Your task to perform on an android device: Open Amazon Image 0: 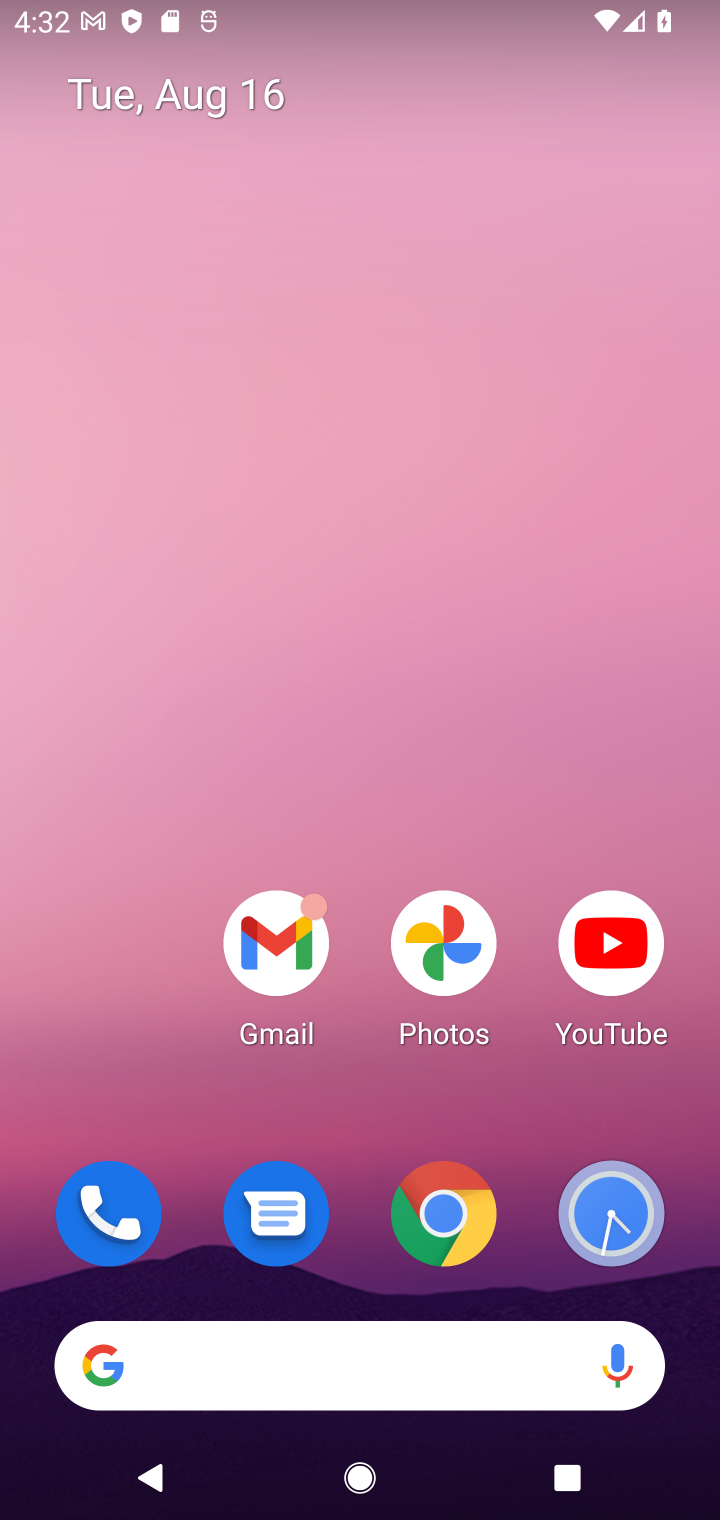
Step 0: drag from (479, 909) to (378, 0)
Your task to perform on an android device: Open Amazon Image 1: 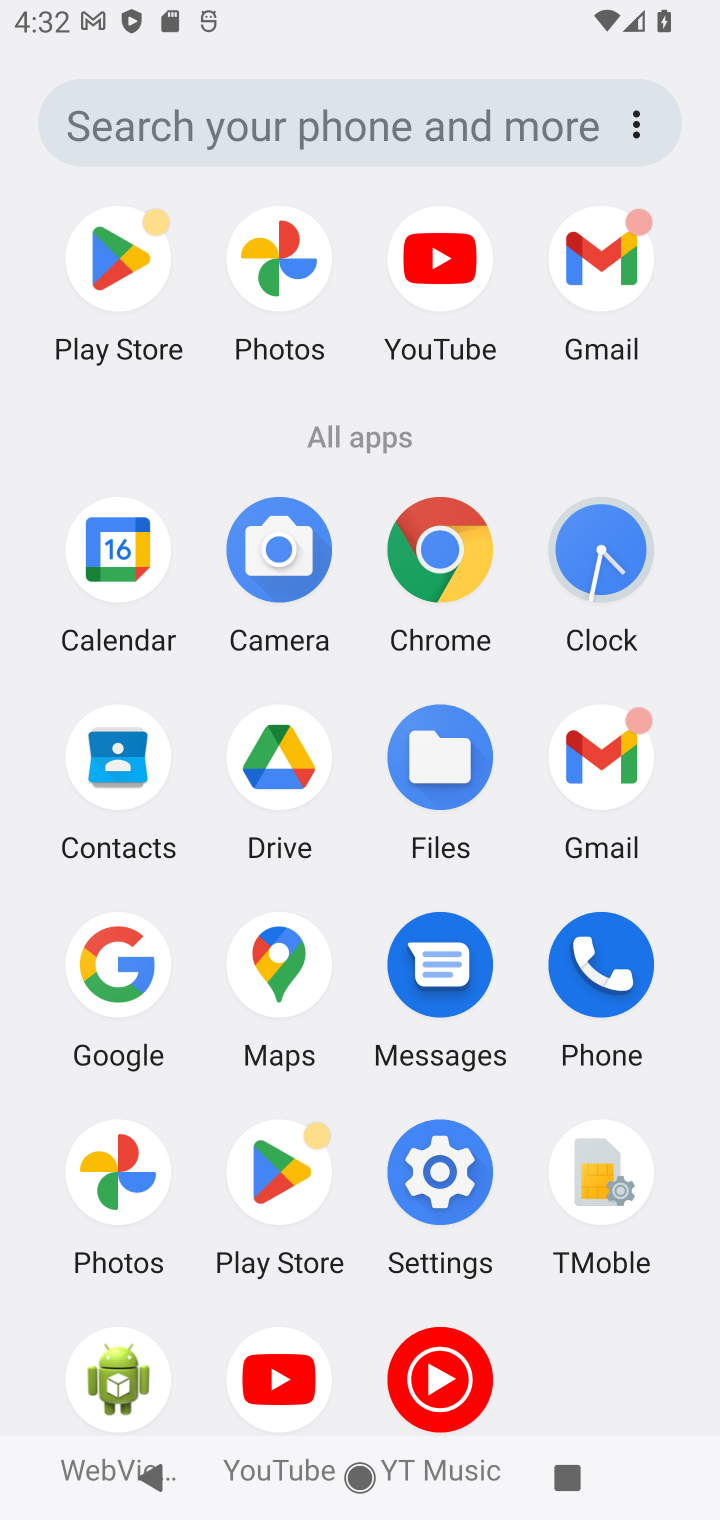
Step 1: click (434, 545)
Your task to perform on an android device: Open Amazon Image 2: 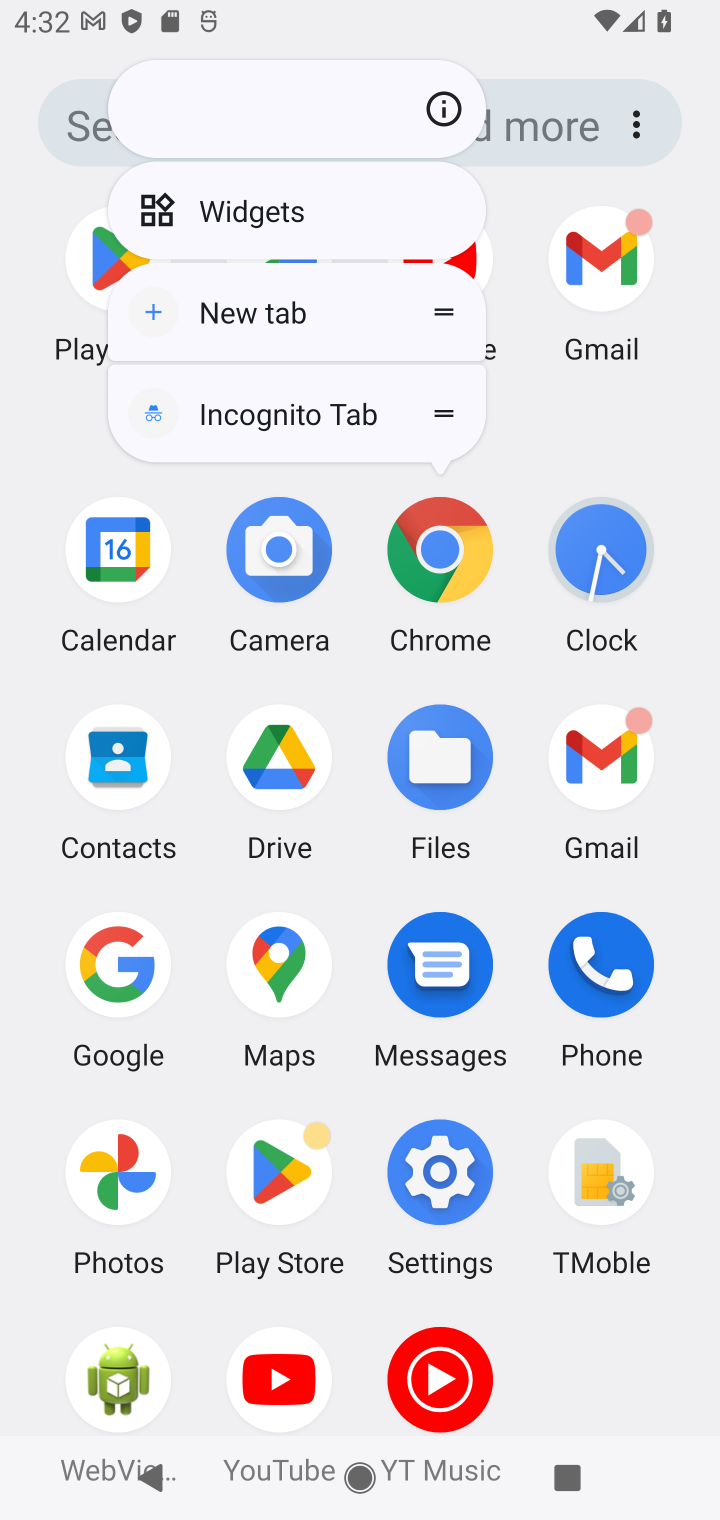
Step 2: click (446, 550)
Your task to perform on an android device: Open Amazon Image 3: 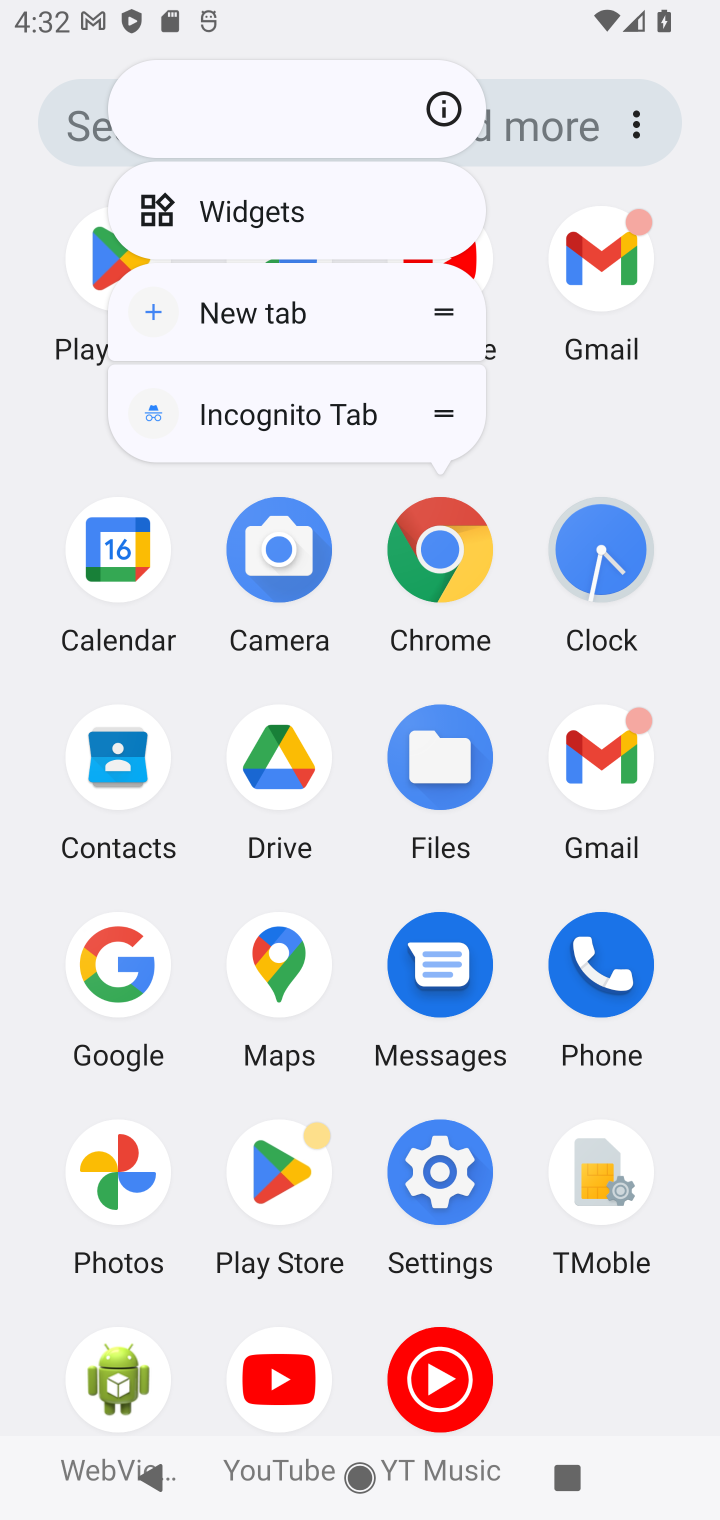
Step 3: click (448, 553)
Your task to perform on an android device: Open Amazon Image 4: 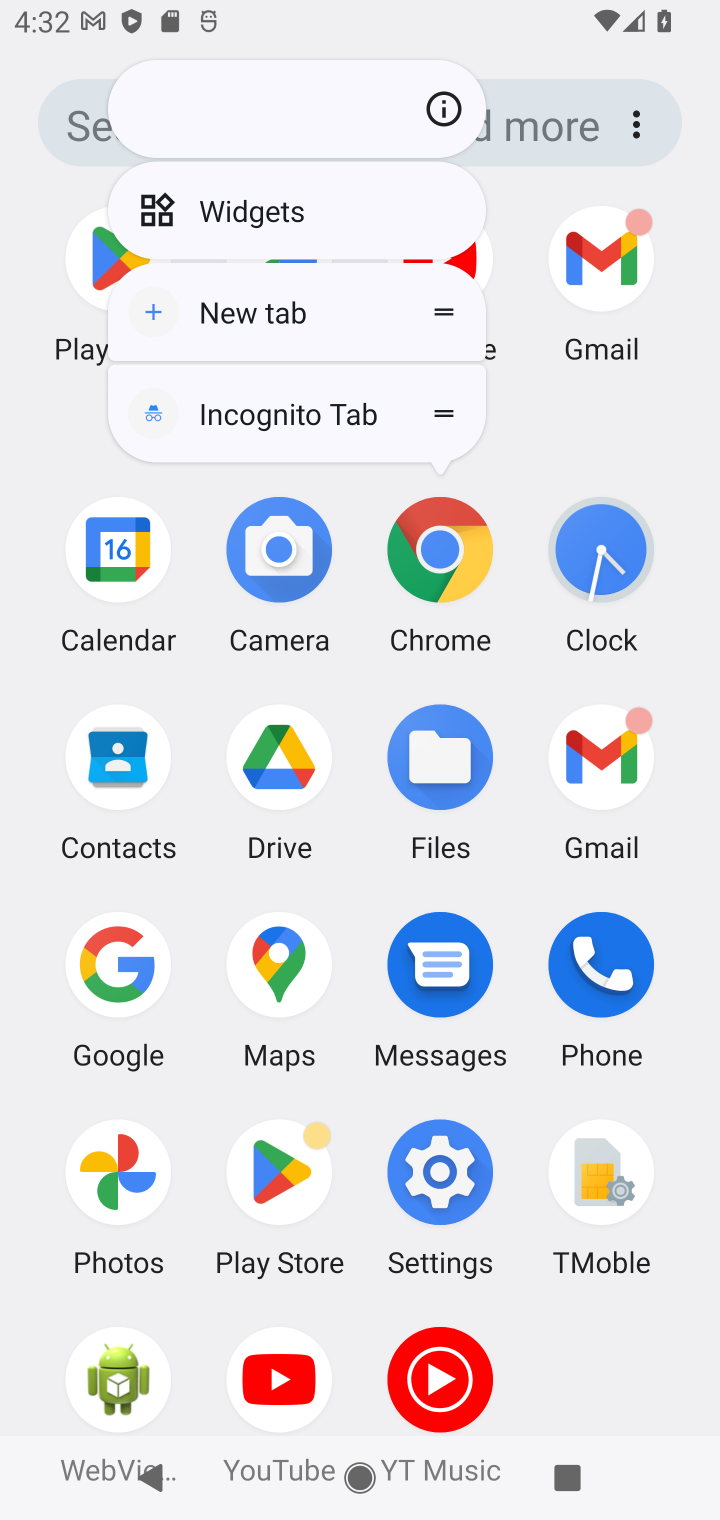
Step 4: click (444, 548)
Your task to perform on an android device: Open Amazon Image 5: 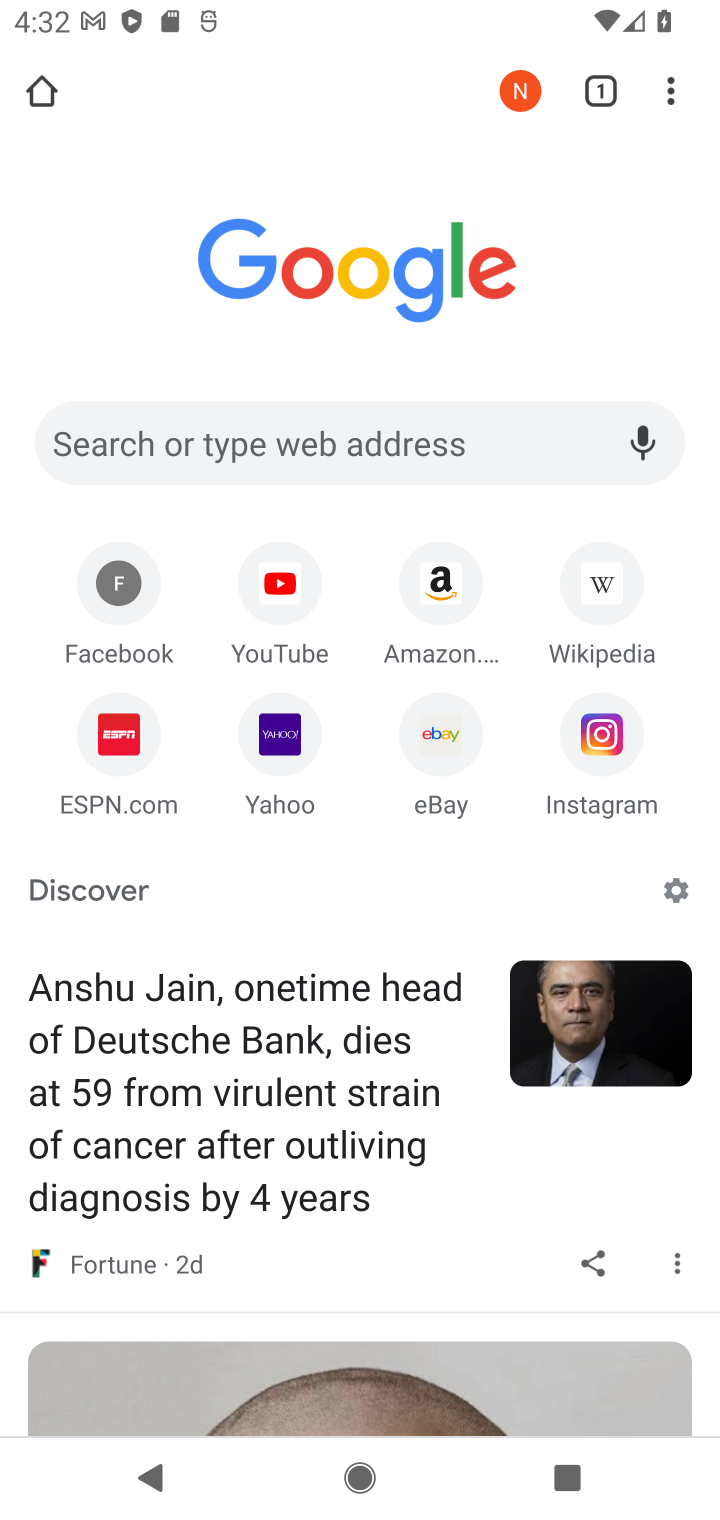
Step 5: click (445, 589)
Your task to perform on an android device: Open Amazon Image 6: 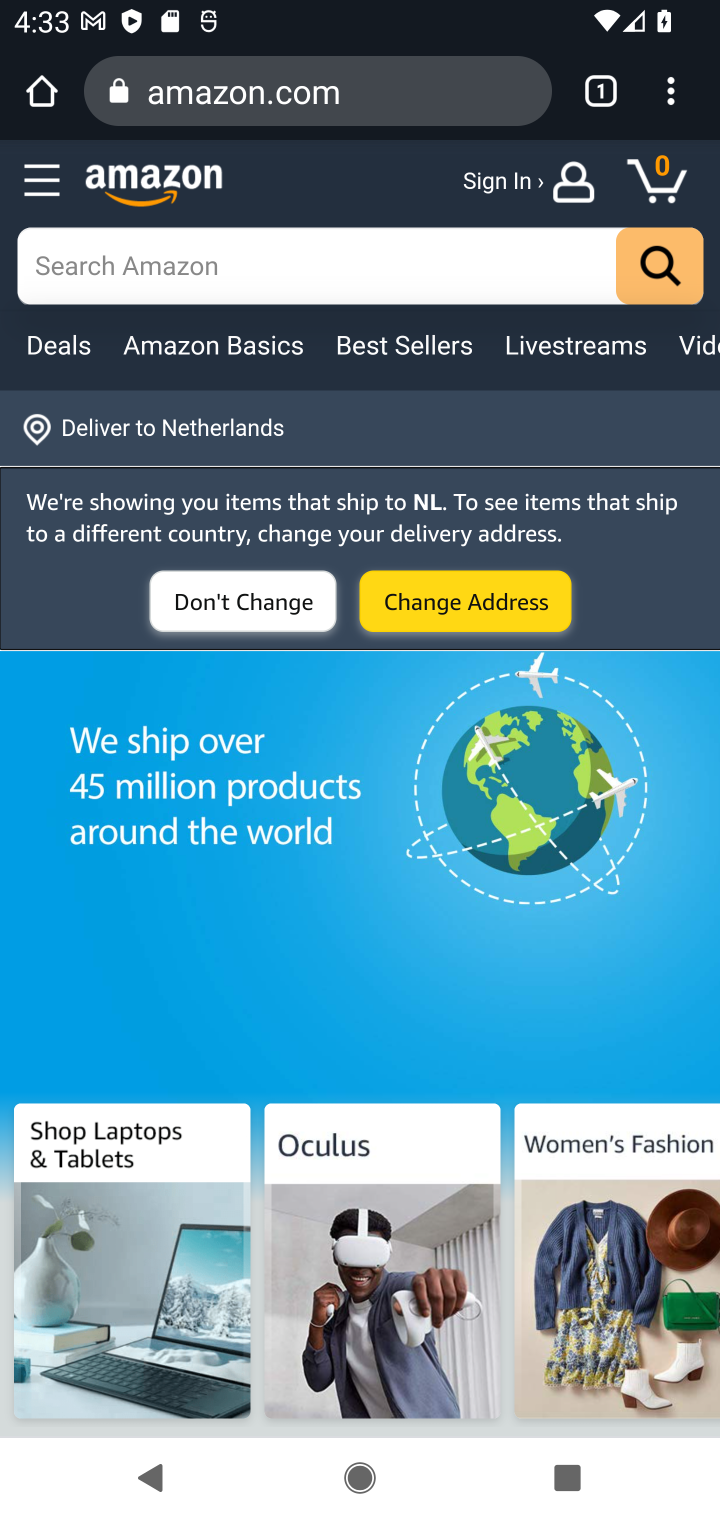
Step 6: task complete